Your task to perform on an android device: Show me the alarms in the clock app Image 0: 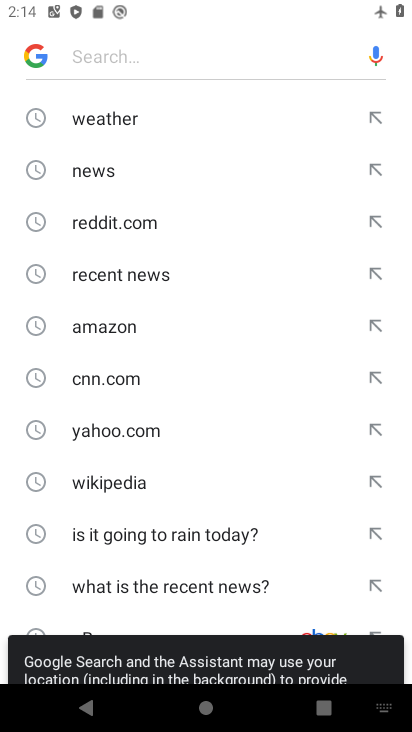
Step 0: press home button
Your task to perform on an android device: Show me the alarms in the clock app Image 1: 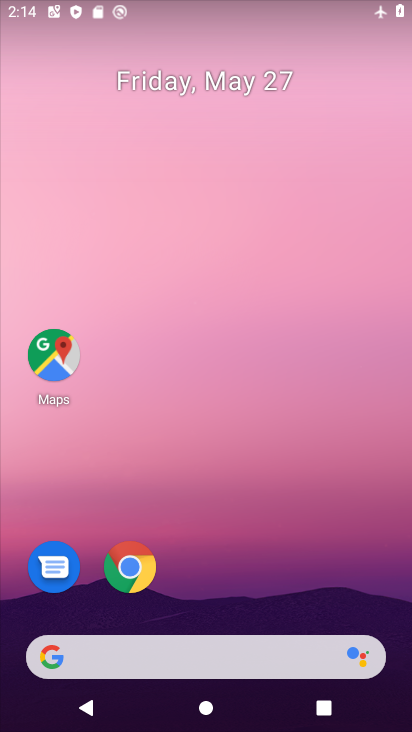
Step 1: drag from (218, 565) to (272, 117)
Your task to perform on an android device: Show me the alarms in the clock app Image 2: 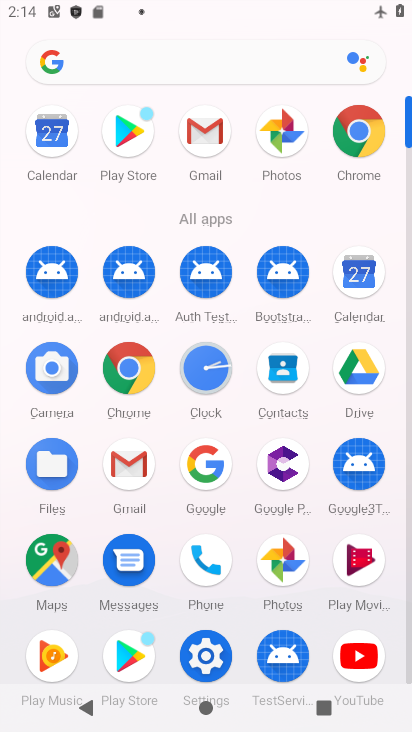
Step 2: click (212, 363)
Your task to perform on an android device: Show me the alarms in the clock app Image 3: 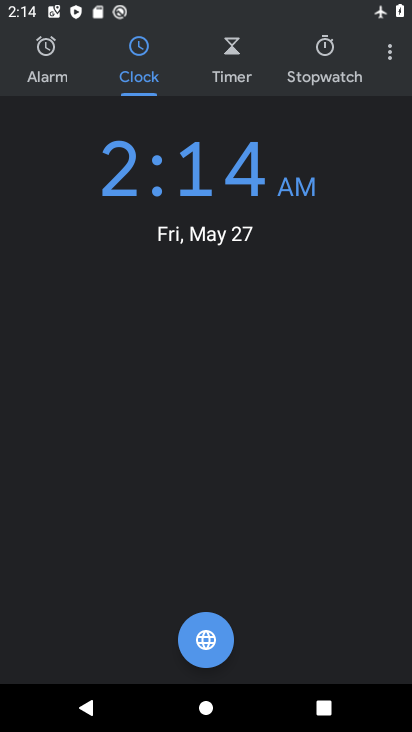
Step 3: click (49, 66)
Your task to perform on an android device: Show me the alarms in the clock app Image 4: 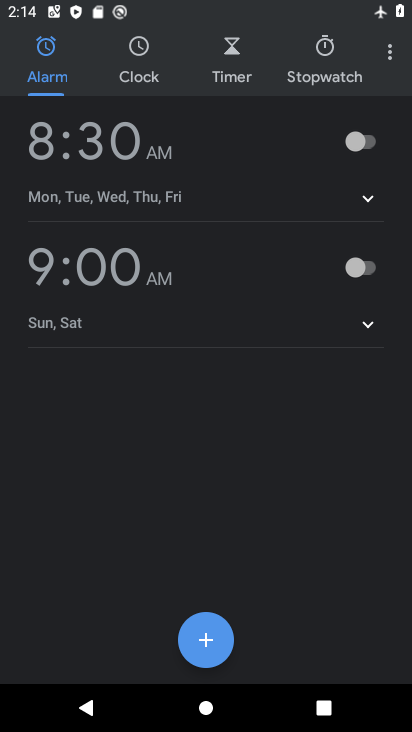
Step 4: task complete